Your task to perform on an android device: toggle wifi Image 0: 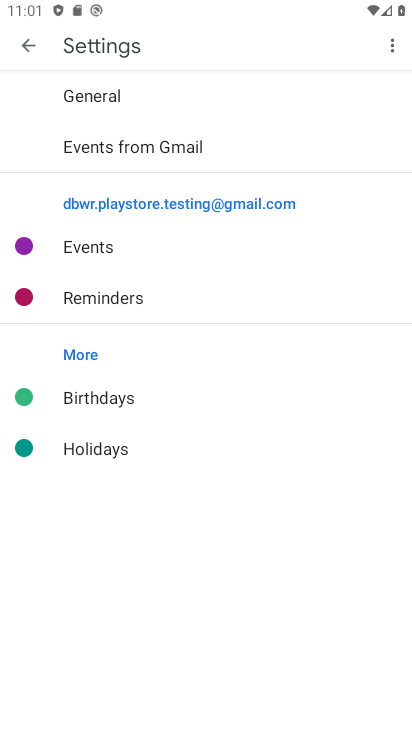
Step 0: press back button
Your task to perform on an android device: toggle wifi Image 1: 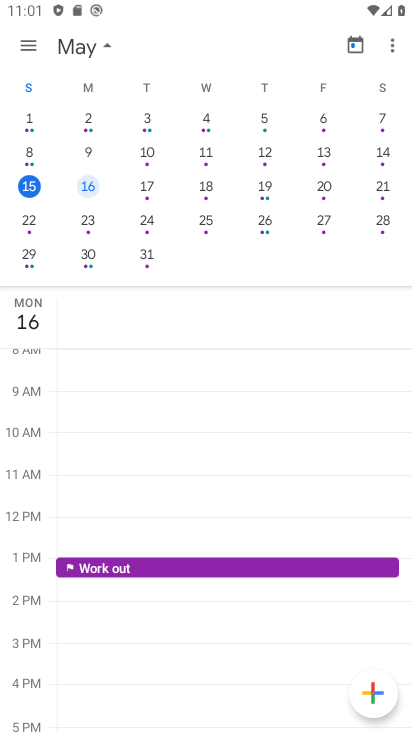
Step 1: press home button
Your task to perform on an android device: toggle wifi Image 2: 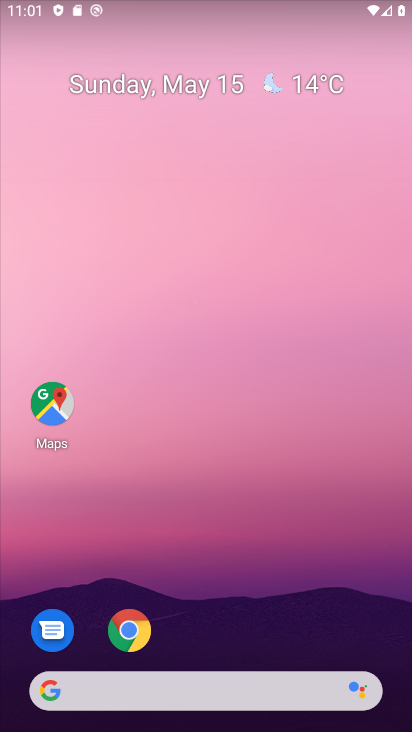
Step 2: drag from (24, 615) to (401, 99)
Your task to perform on an android device: toggle wifi Image 3: 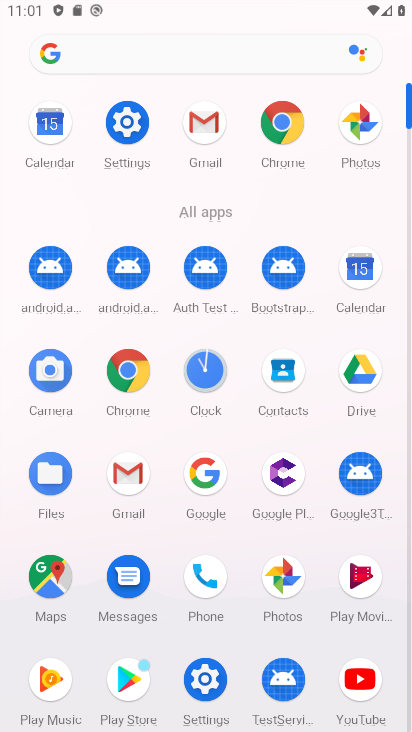
Step 3: click (127, 122)
Your task to perform on an android device: toggle wifi Image 4: 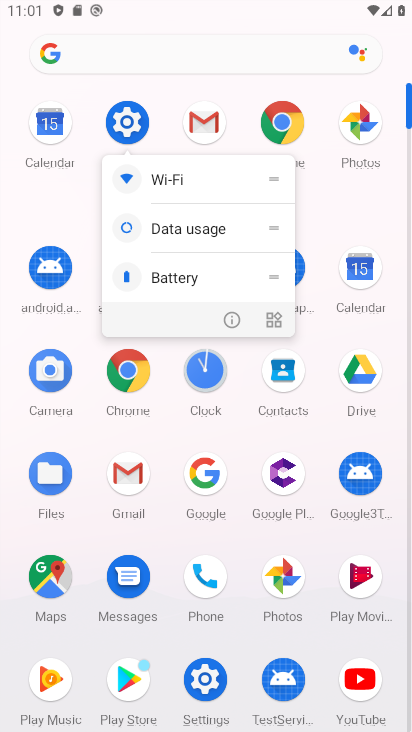
Step 4: click (144, 168)
Your task to perform on an android device: toggle wifi Image 5: 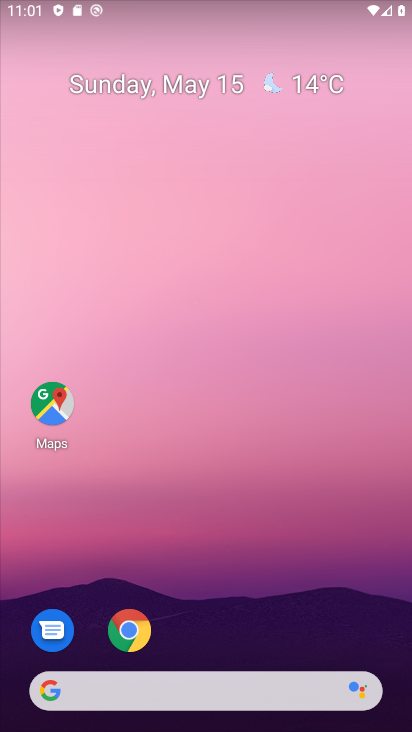
Step 5: drag from (258, 16) to (227, 572)
Your task to perform on an android device: toggle wifi Image 6: 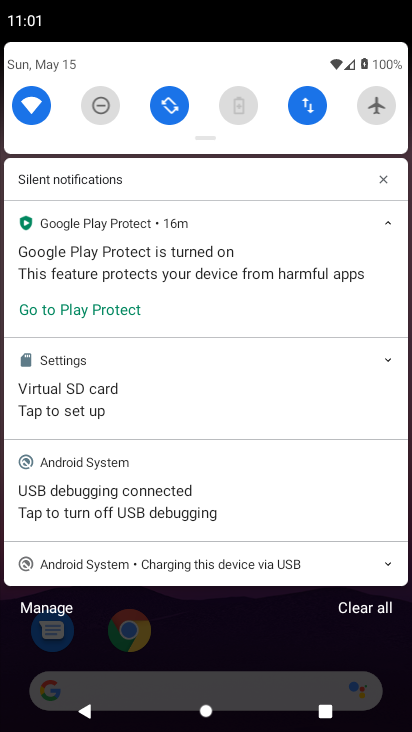
Step 6: click (14, 105)
Your task to perform on an android device: toggle wifi Image 7: 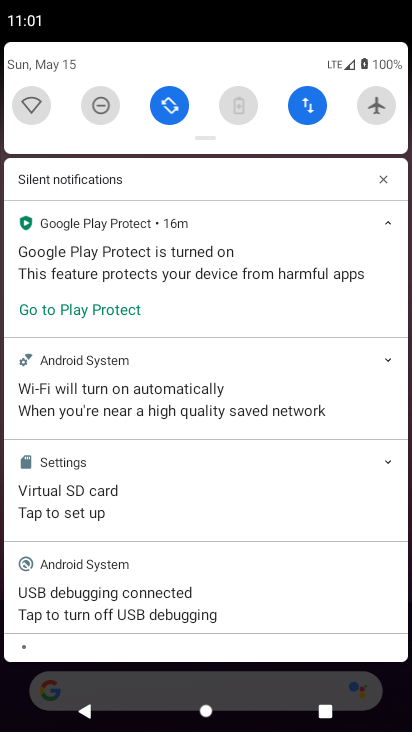
Step 7: task complete